Your task to perform on an android device: What is the news today? Image 0: 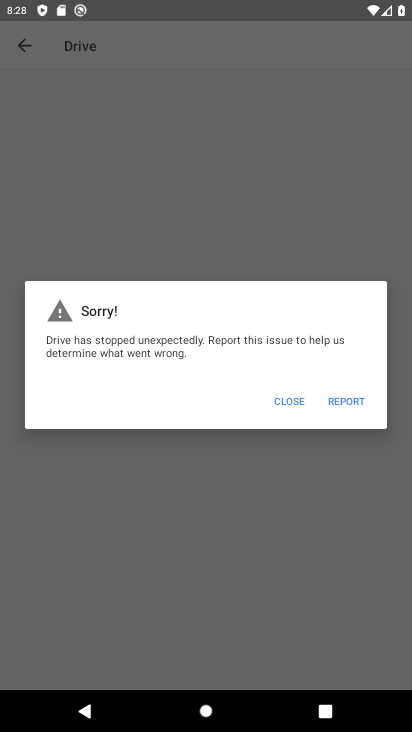
Step 0: click (298, 399)
Your task to perform on an android device: What is the news today? Image 1: 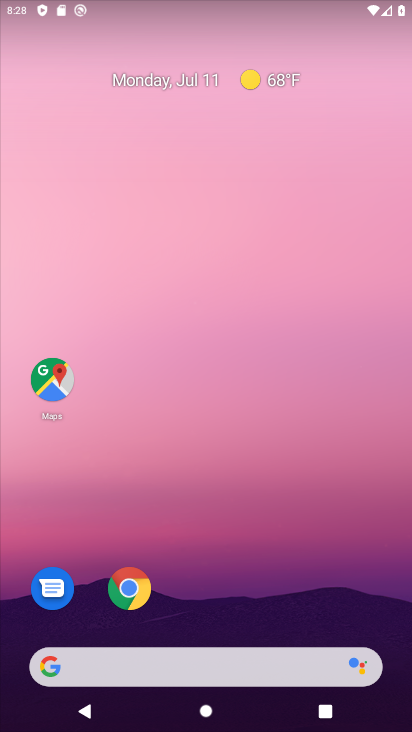
Step 1: task complete